Your task to perform on an android device: check out phone information Image 0: 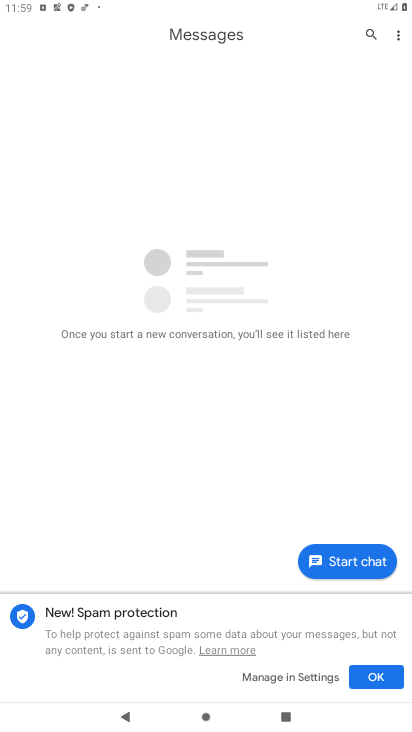
Step 0: drag from (377, 642) to (375, 425)
Your task to perform on an android device: check out phone information Image 1: 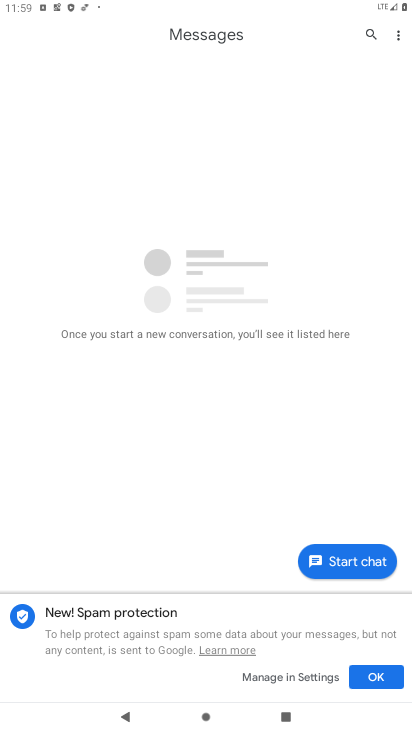
Step 1: press home button
Your task to perform on an android device: check out phone information Image 2: 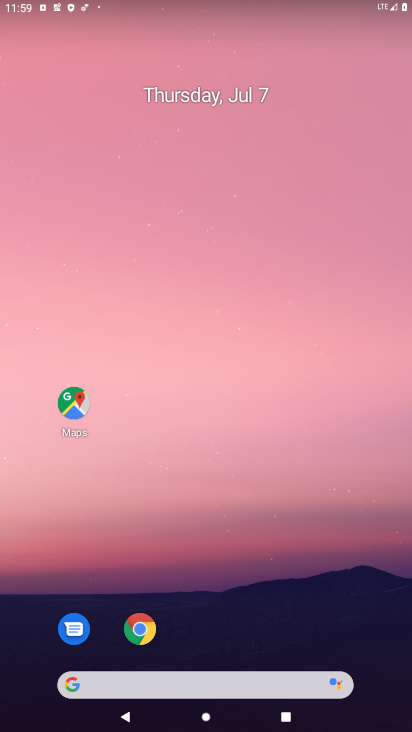
Step 2: drag from (334, 621) to (284, 35)
Your task to perform on an android device: check out phone information Image 3: 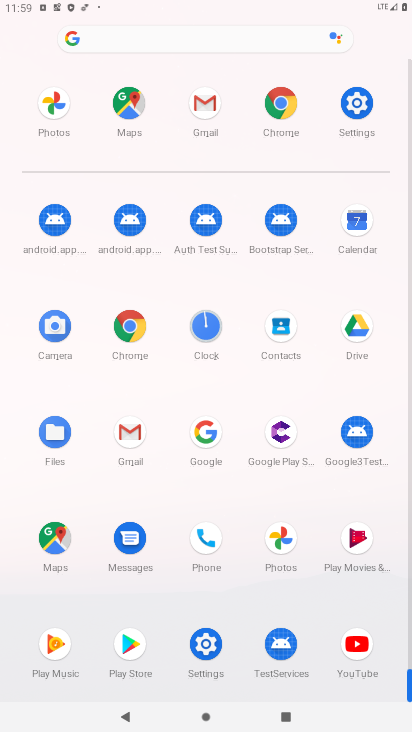
Step 3: click (207, 646)
Your task to perform on an android device: check out phone information Image 4: 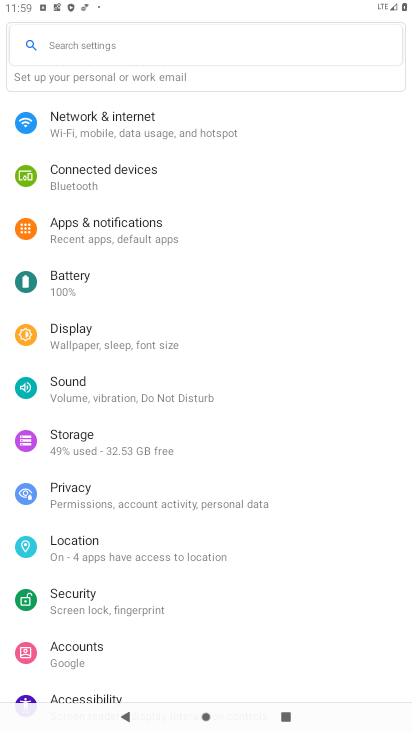
Step 4: drag from (302, 672) to (299, 292)
Your task to perform on an android device: check out phone information Image 5: 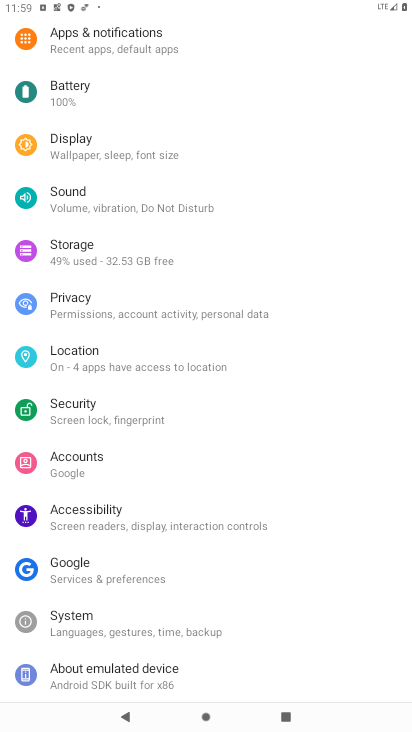
Step 5: click (96, 665)
Your task to perform on an android device: check out phone information Image 6: 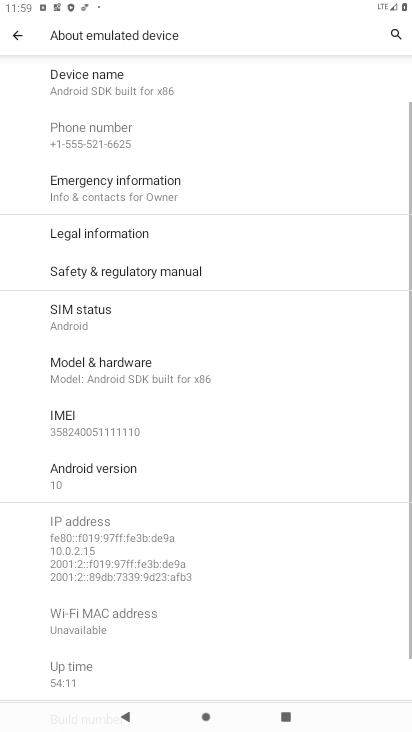
Step 6: task complete